Your task to perform on an android device: open app "Google Keep" (install if not already installed) Image 0: 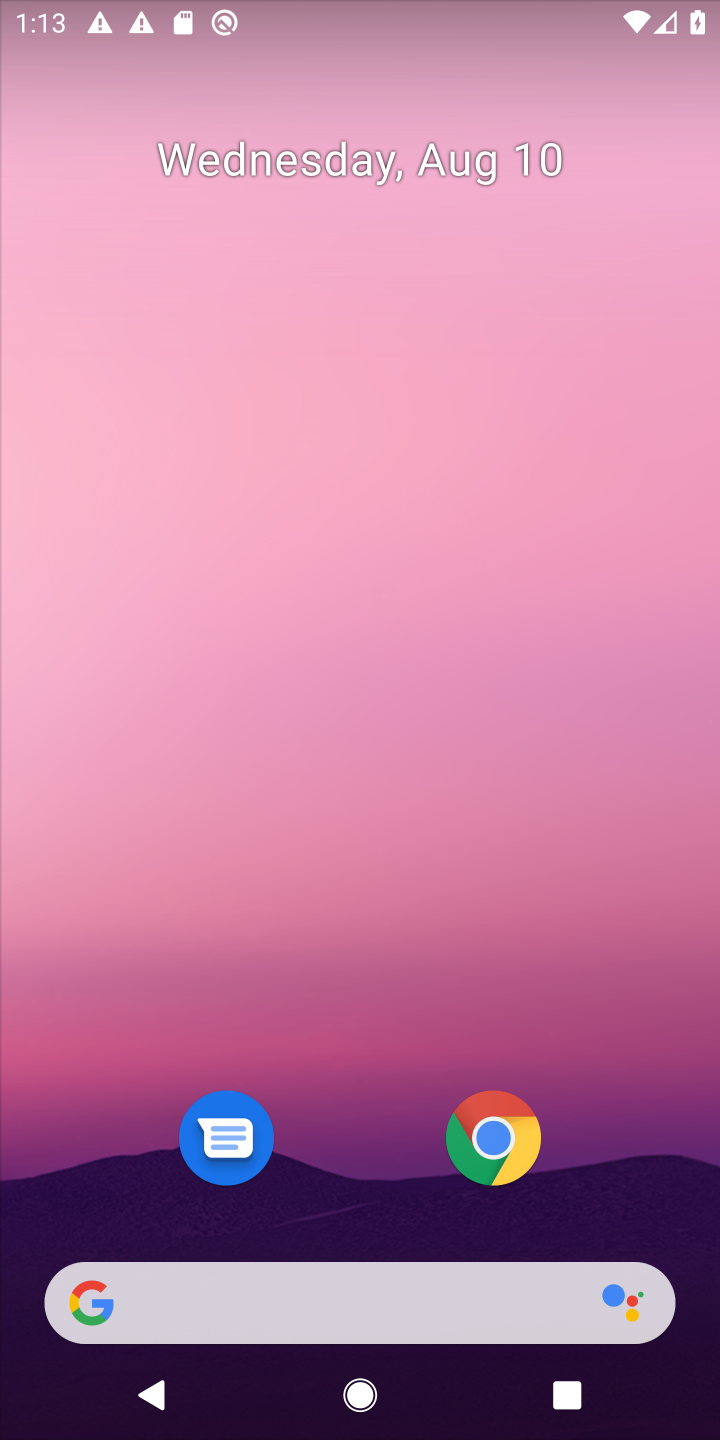
Step 0: press home button
Your task to perform on an android device: open app "Google Keep" (install if not already installed) Image 1: 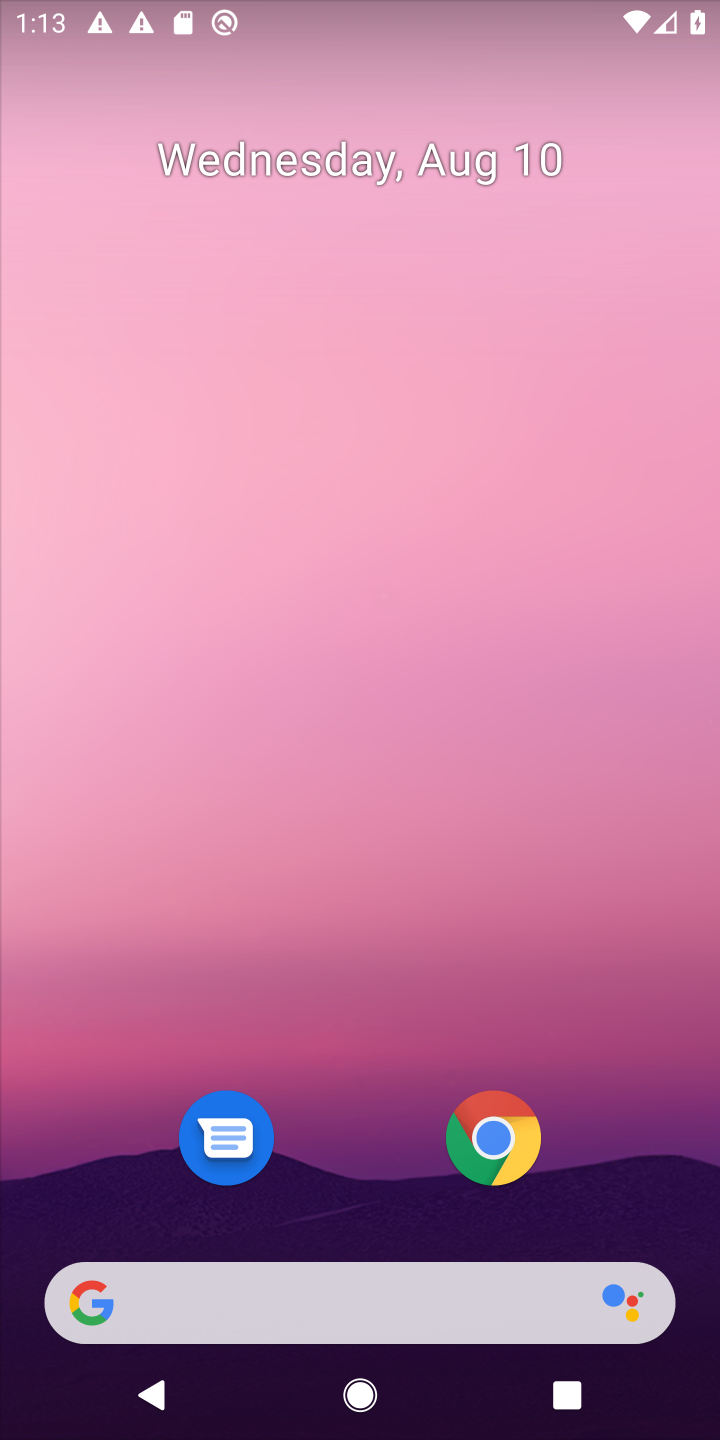
Step 1: drag from (613, 1160) to (652, 108)
Your task to perform on an android device: open app "Google Keep" (install if not already installed) Image 2: 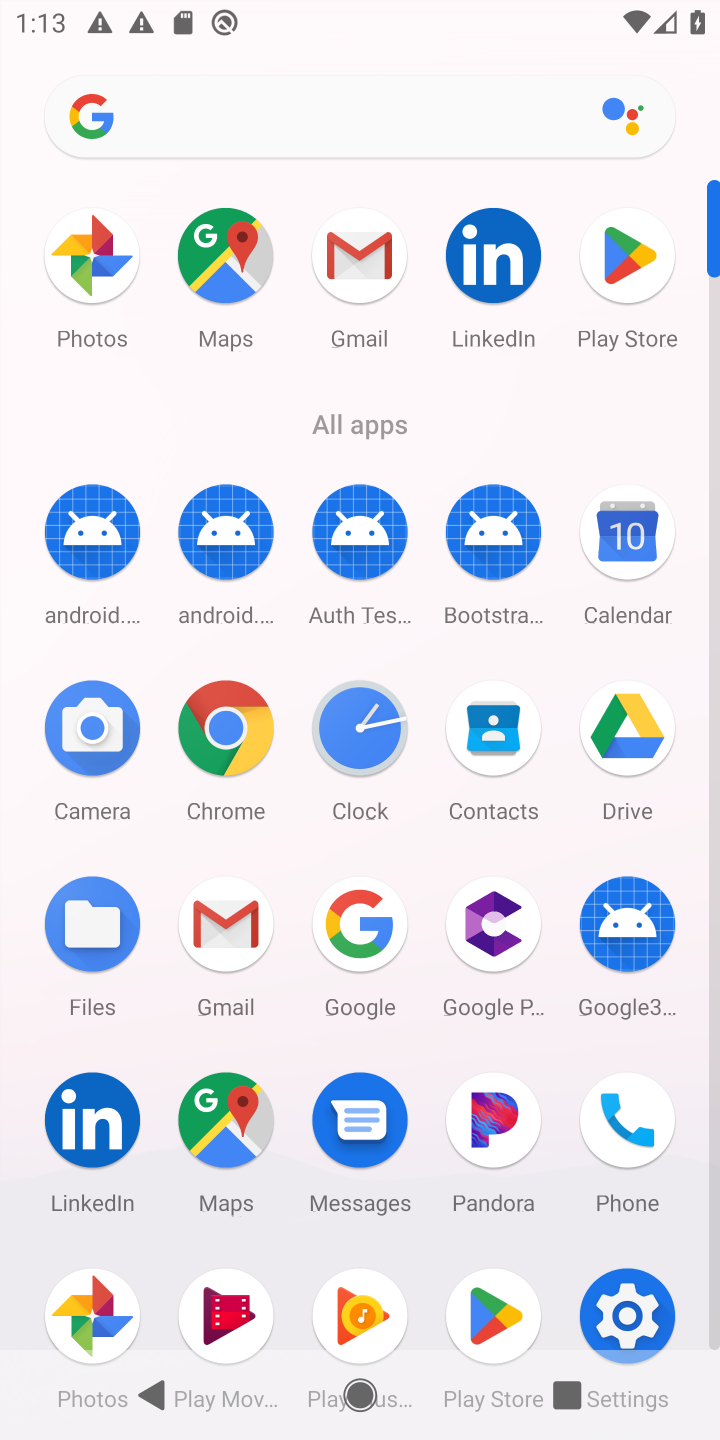
Step 2: click (635, 258)
Your task to perform on an android device: open app "Google Keep" (install if not already installed) Image 3: 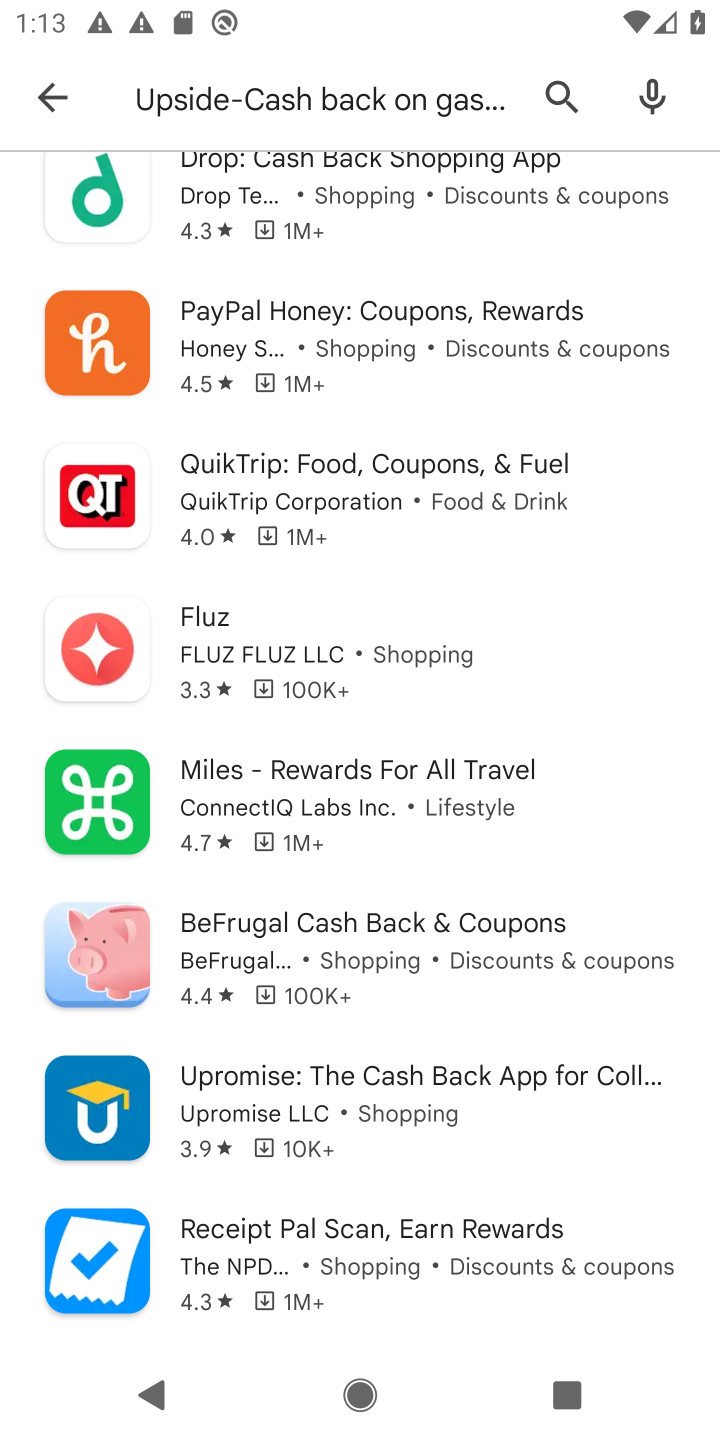
Step 3: click (553, 89)
Your task to perform on an android device: open app "Google Keep" (install if not already installed) Image 4: 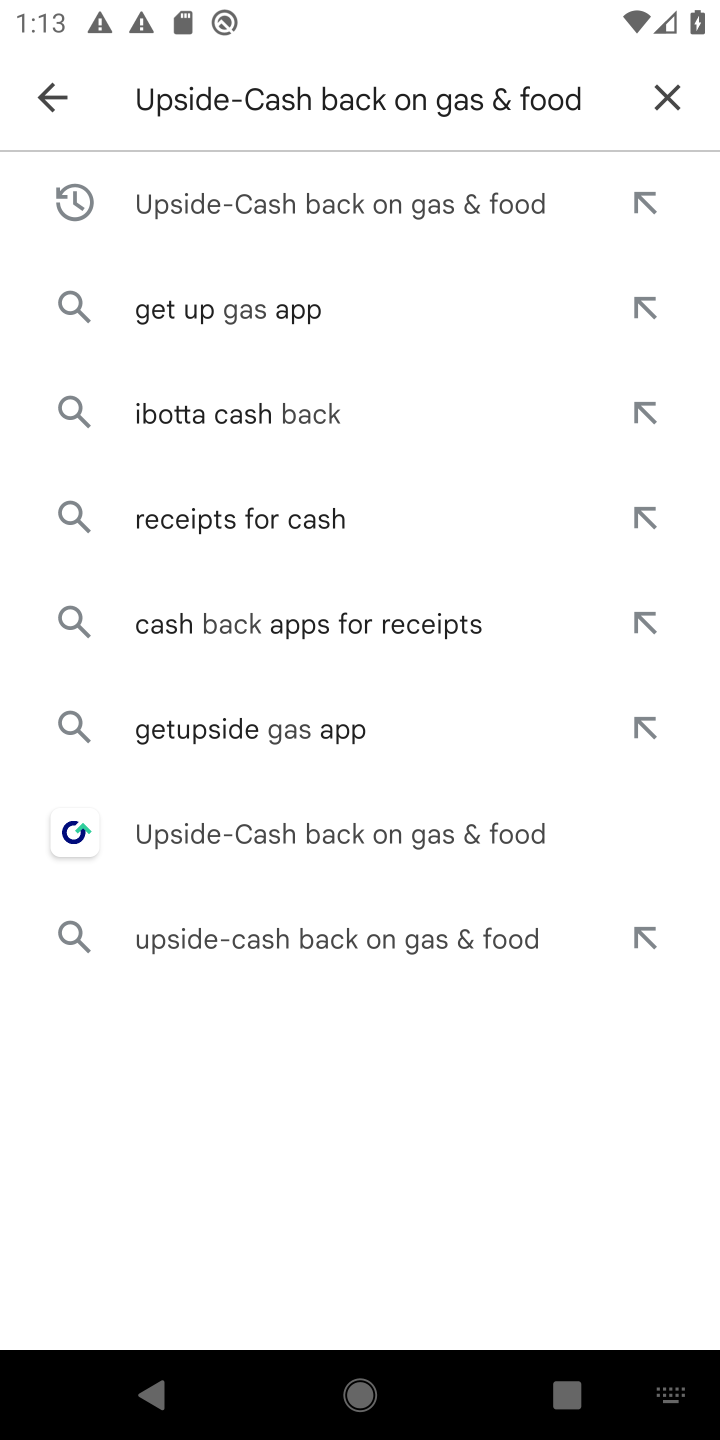
Step 4: click (660, 95)
Your task to perform on an android device: open app "Google Keep" (install if not already installed) Image 5: 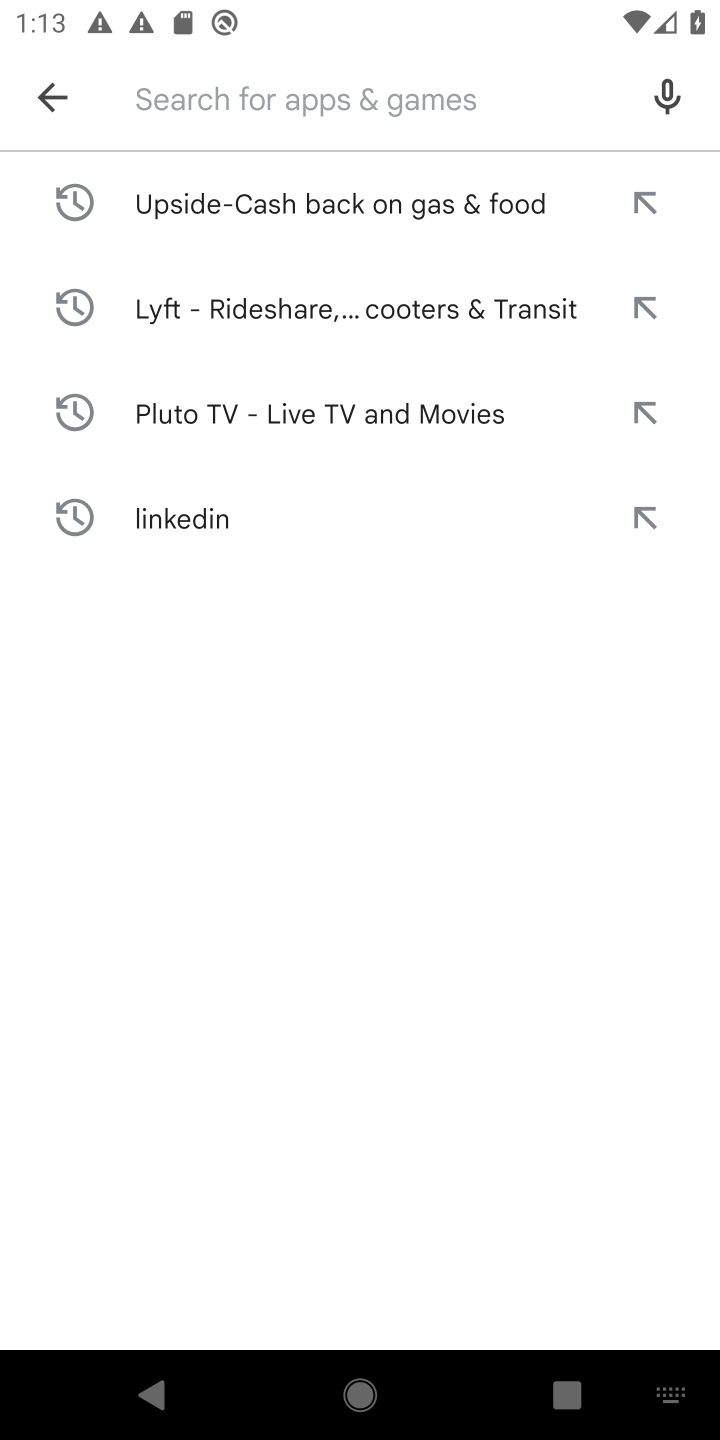
Step 5: type "google keep"
Your task to perform on an android device: open app "Google Keep" (install if not already installed) Image 6: 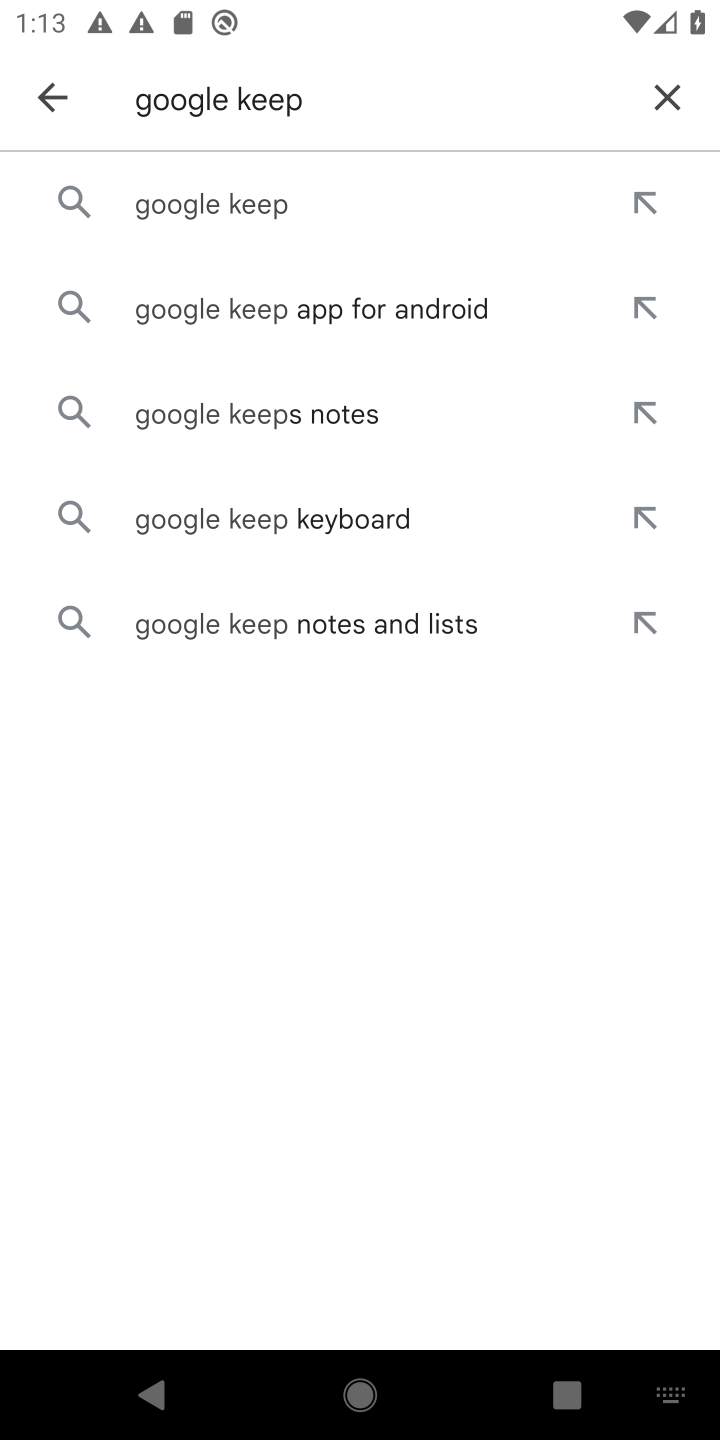
Step 6: click (281, 222)
Your task to perform on an android device: open app "Google Keep" (install if not already installed) Image 7: 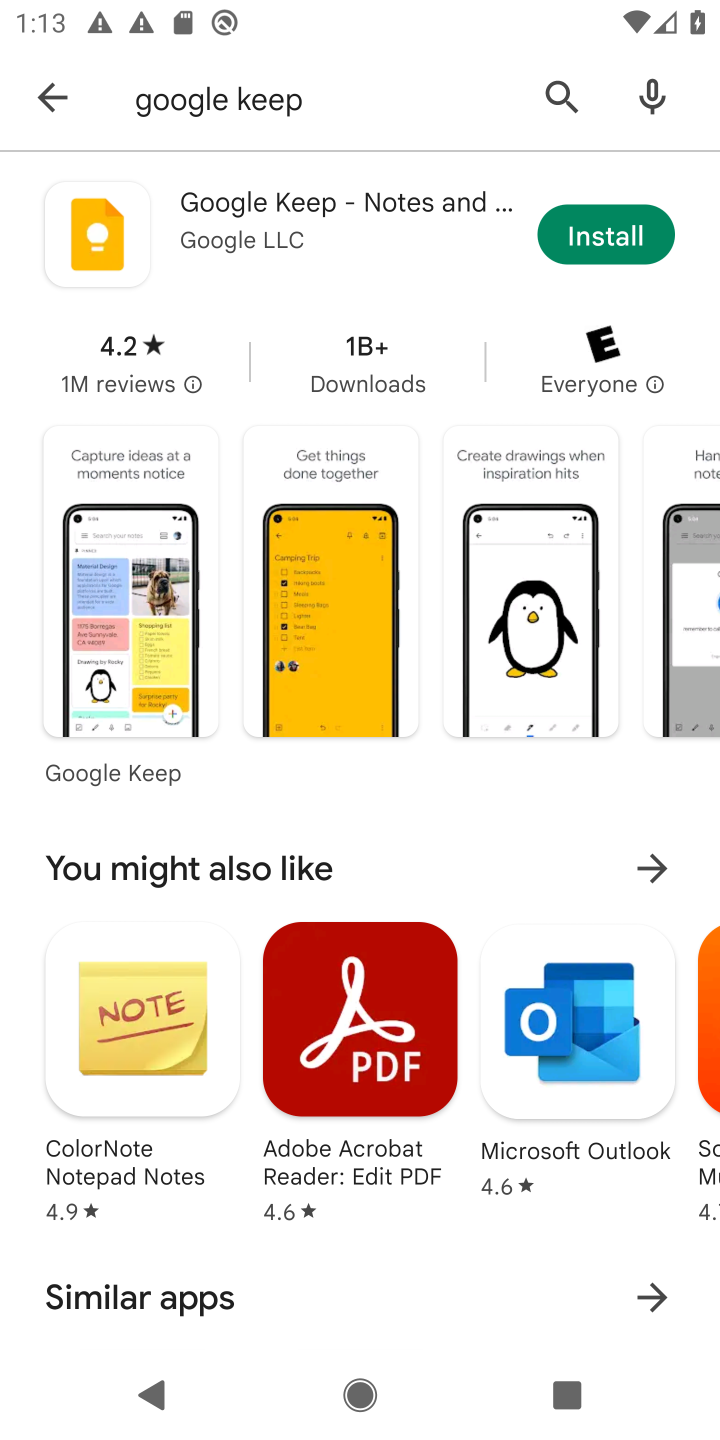
Step 7: click (632, 239)
Your task to perform on an android device: open app "Google Keep" (install if not already installed) Image 8: 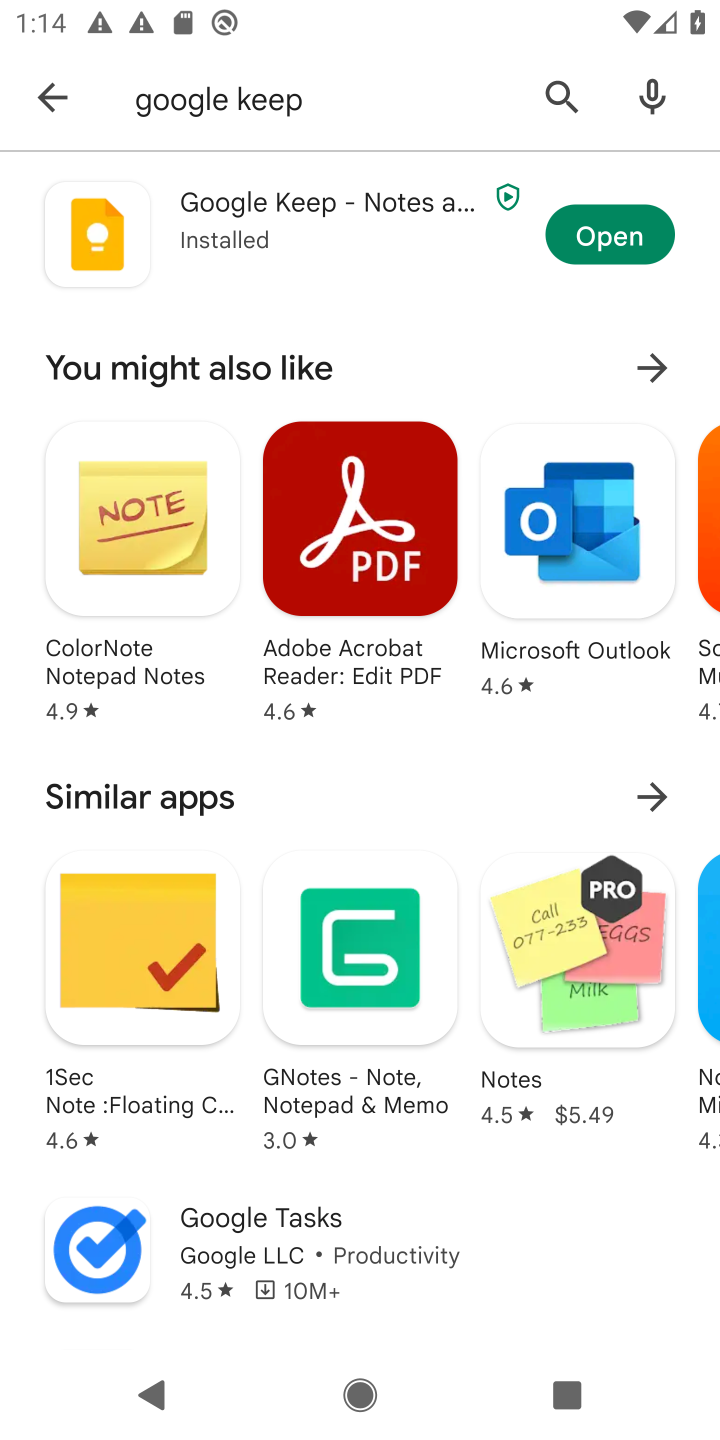
Step 8: click (620, 236)
Your task to perform on an android device: open app "Google Keep" (install if not already installed) Image 9: 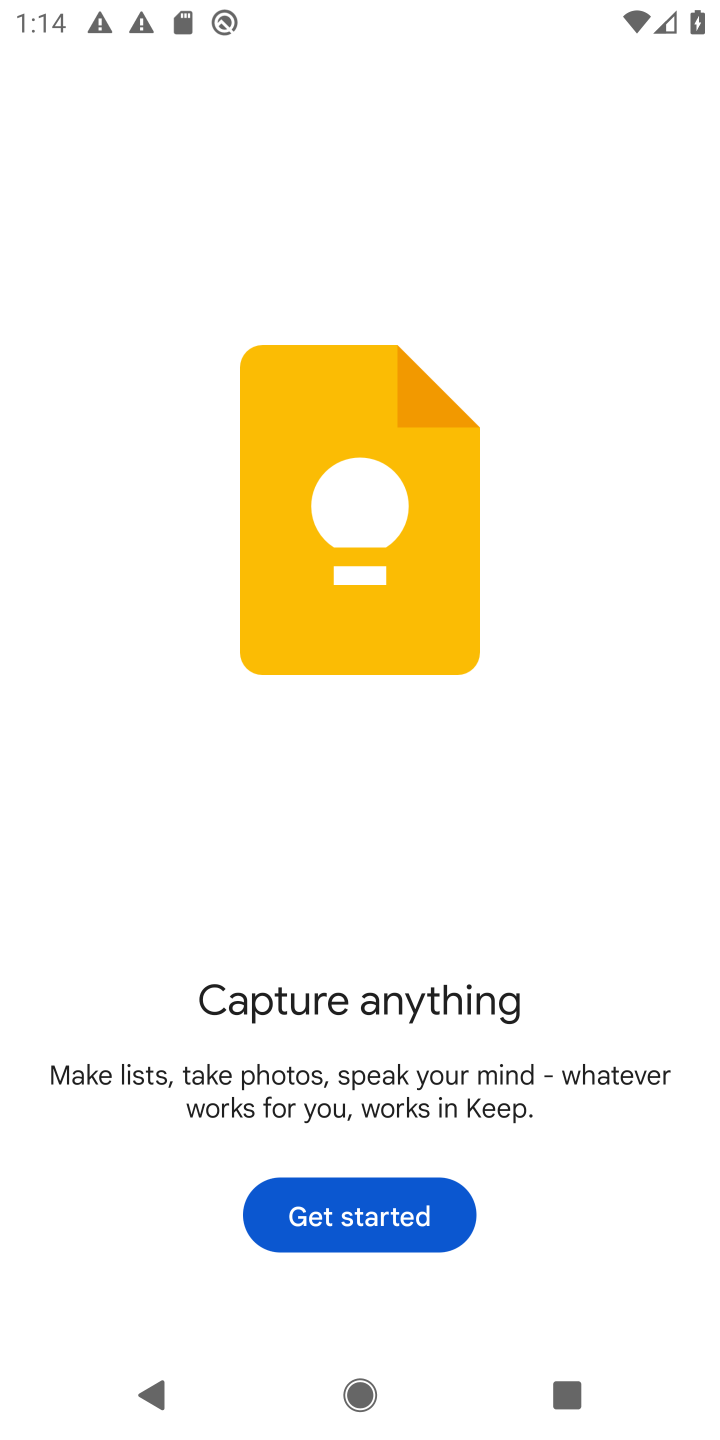
Step 9: task complete